Your task to perform on an android device: turn on airplane mode Image 0: 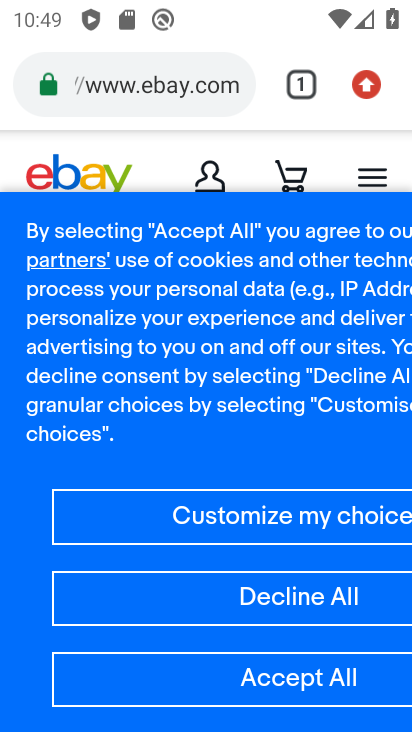
Step 0: press home button
Your task to perform on an android device: turn on airplane mode Image 1: 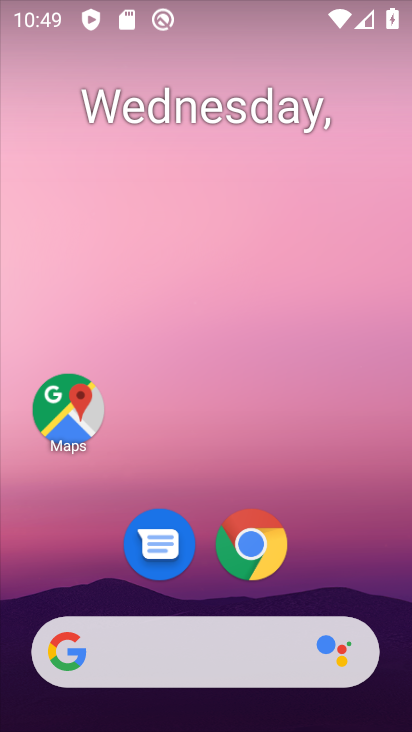
Step 1: drag from (287, 555) to (316, 186)
Your task to perform on an android device: turn on airplane mode Image 2: 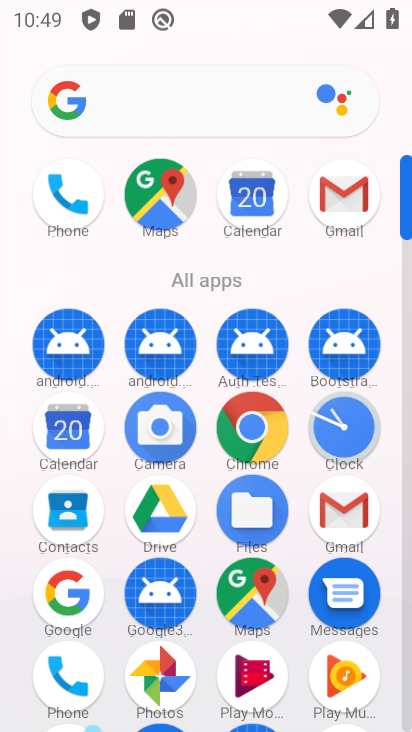
Step 2: drag from (201, 445) to (196, 175)
Your task to perform on an android device: turn on airplane mode Image 3: 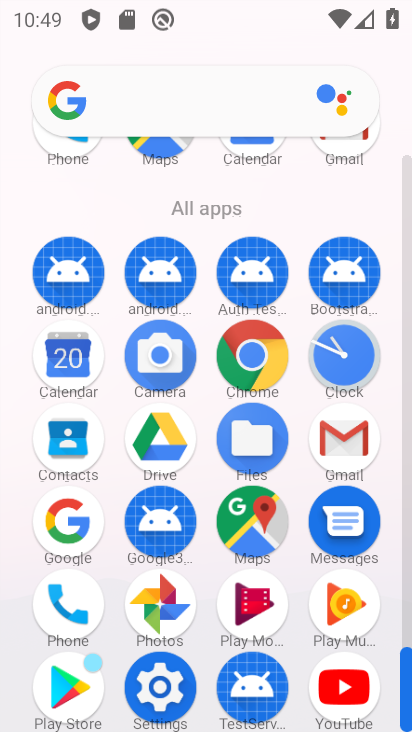
Step 3: click (163, 698)
Your task to perform on an android device: turn on airplane mode Image 4: 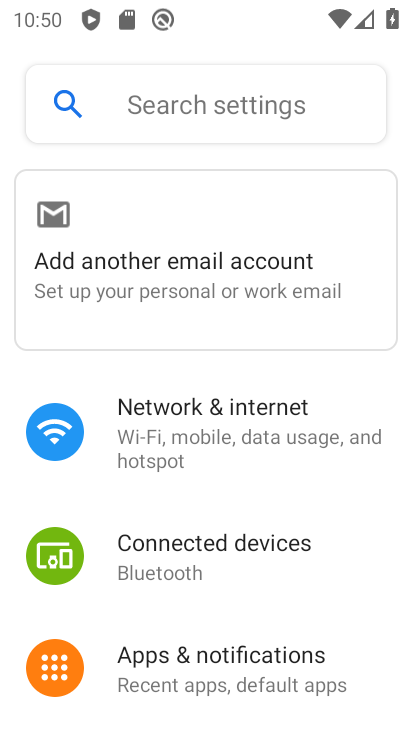
Step 4: drag from (219, 593) to (288, 173)
Your task to perform on an android device: turn on airplane mode Image 5: 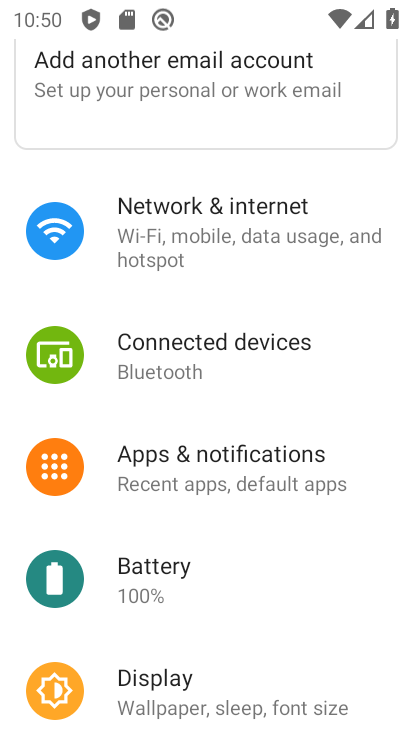
Step 5: click (197, 240)
Your task to perform on an android device: turn on airplane mode Image 6: 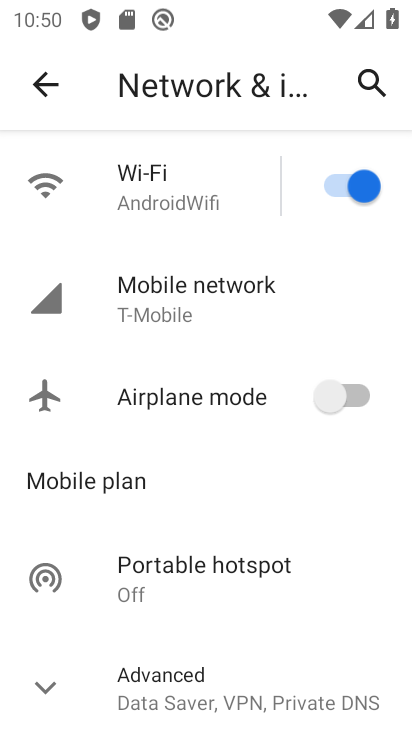
Step 6: click (320, 391)
Your task to perform on an android device: turn on airplane mode Image 7: 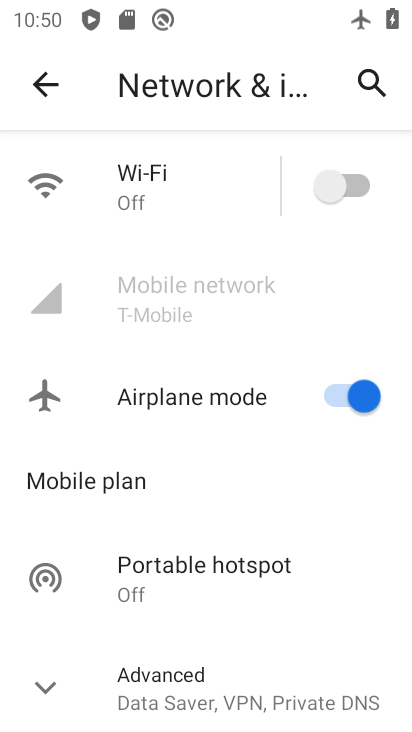
Step 7: task complete